Your task to perform on an android device: turn off javascript in the chrome app Image 0: 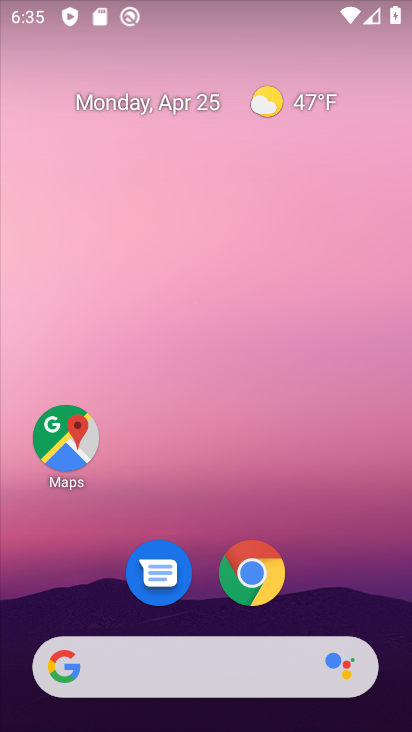
Step 0: click (266, 574)
Your task to perform on an android device: turn off javascript in the chrome app Image 1: 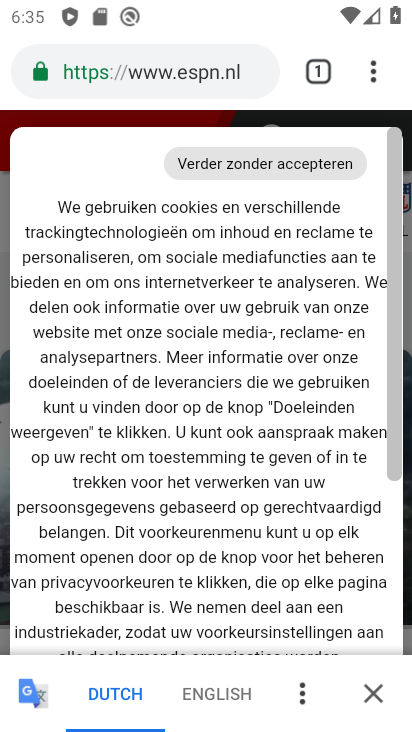
Step 1: click (373, 76)
Your task to perform on an android device: turn off javascript in the chrome app Image 2: 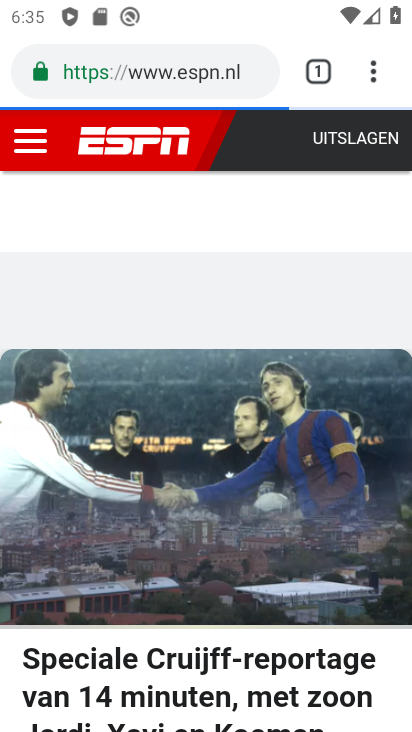
Step 2: click (373, 76)
Your task to perform on an android device: turn off javascript in the chrome app Image 3: 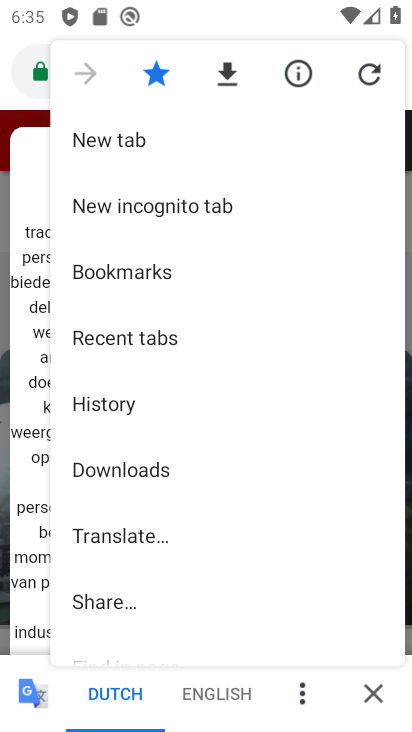
Step 3: drag from (184, 577) to (183, 316)
Your task to perform on an android device: turn off javascript in the chrome app Image 4: 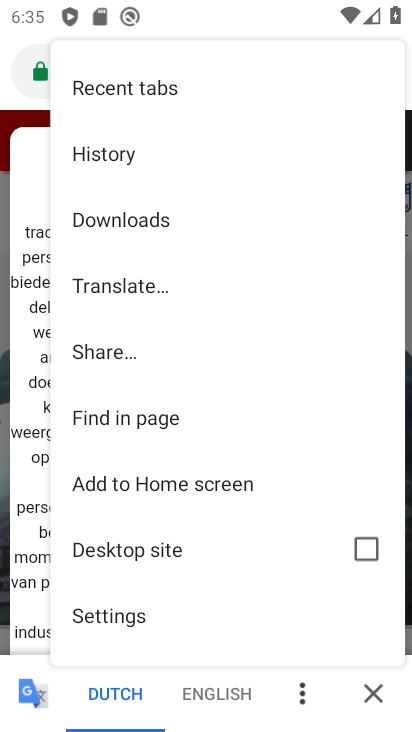
Step 4: click (150, 631)
Your task to perform on an android device: turn off javascript in the chrome app Image 5: 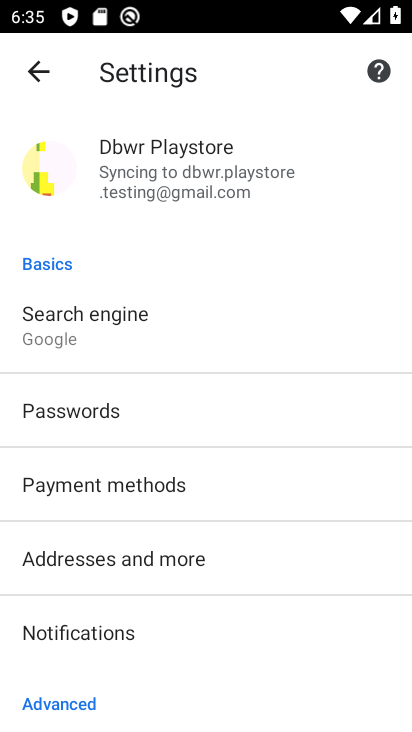
Step 5: drag from (193, 620) to (193, 197)
Your task to perform on an android device: turn off javascript in the chrome app Image 6: 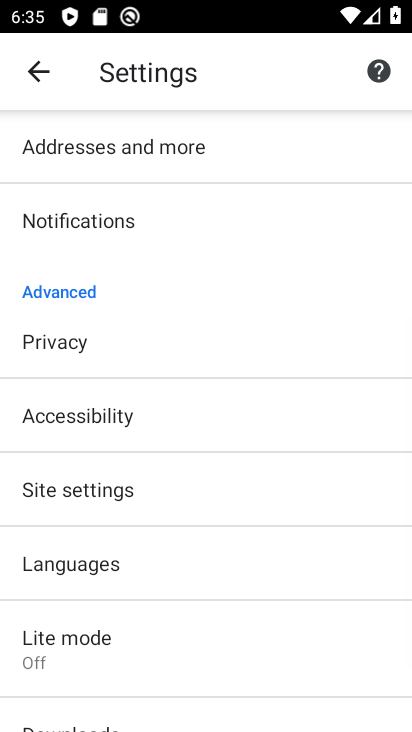
Step 6: click (120, 487)
Your task to perform on an android device: turn off javascript in the chrome app Image 7: 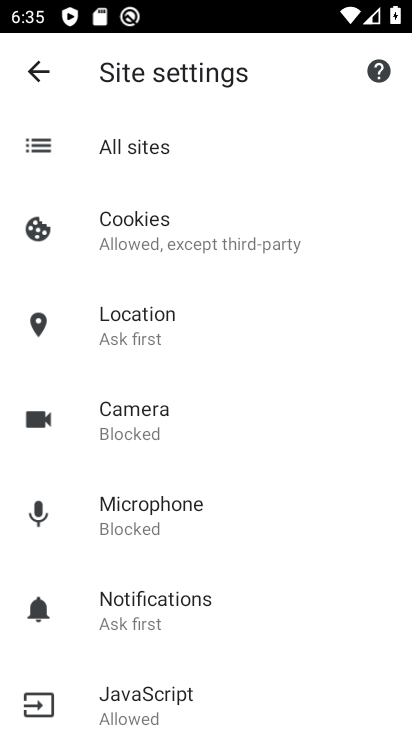
Step 7: click (160, 699)
Your task to perform on an android device: turn off javascript in the chrome app Image 8: 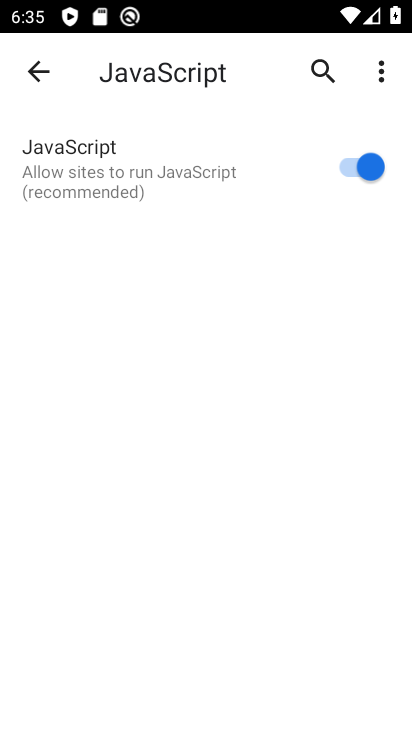
Step 8: click (359, 170)
Your task to perform on an android device: turn off javascript in the chrome app Image 9: 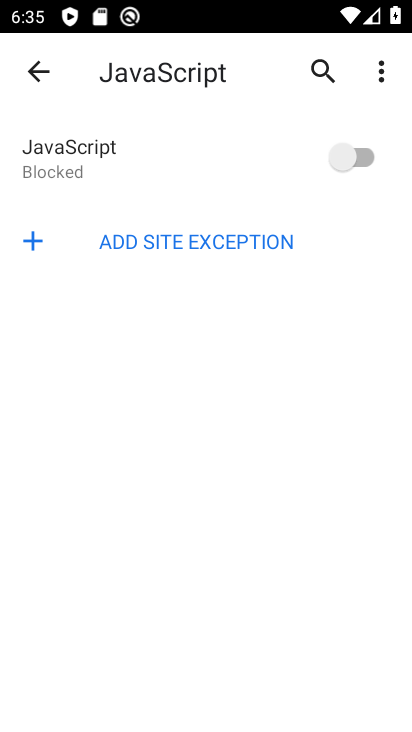
Step 9: task complete